Your task to perform on an android device: Is it going to rain today? Image 0: 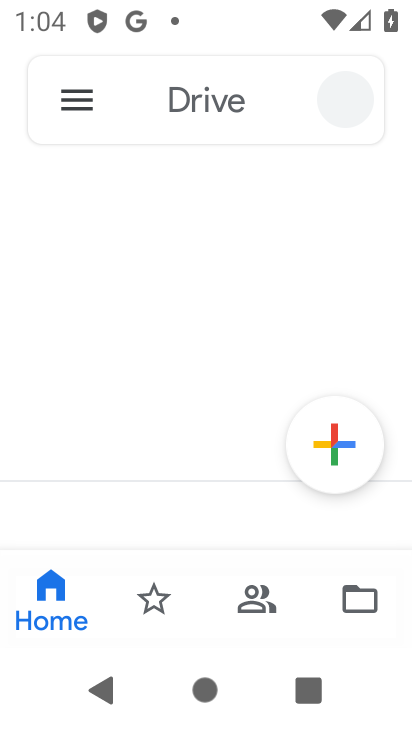
Step 0: drag from (205, 549) to (202, 150)
Your task to perform on an android device: Is it going to rain today? Image 1: 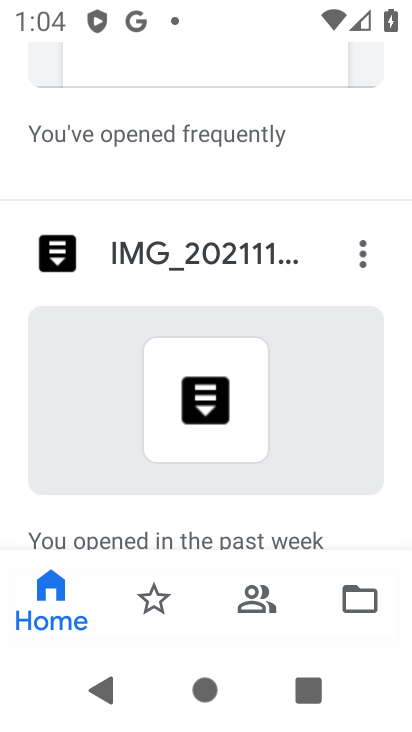
Step 1: press home button
Your task to perform on an android device: Is it going to rain today? Image 2: 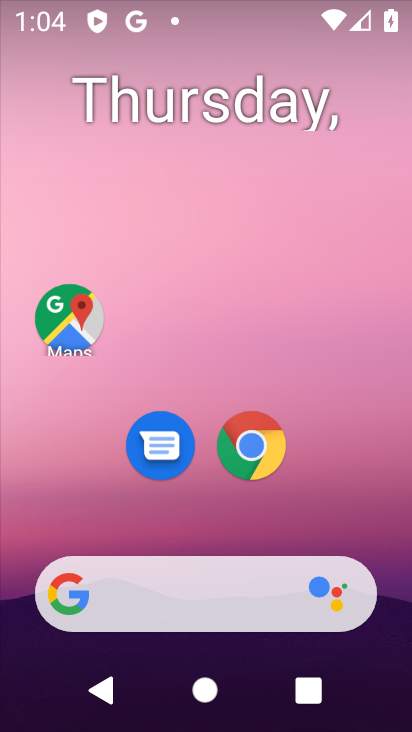
Step 2: drag from (169, 530) to (181, 360)
Your task to perform on an android device: Is it going to rain today? Image 3: 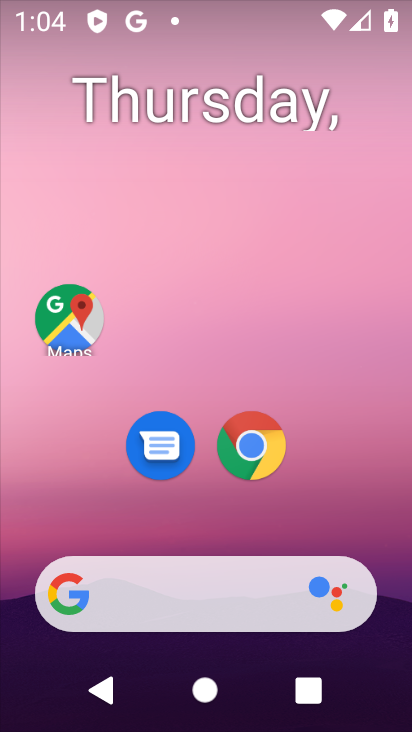
Step 3: drag from (220, 559) to (25, 55)
Your task to perform on an android device: Is it going to rain today? Image 4: 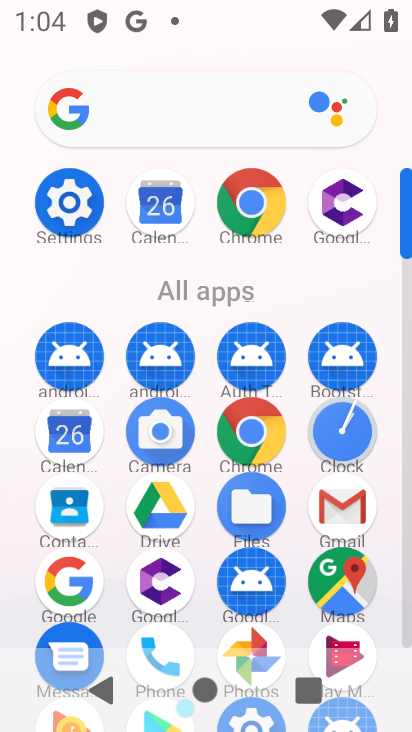
Step 4: click (155, 105)
Your task to perform on an android device: Is it going to rain today? Image 5: 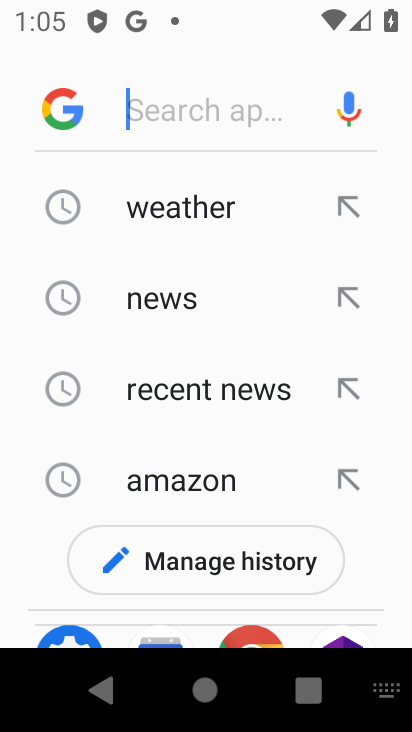
Step 5: type "rain today?"
Your task to perform on an android device: Is it going to rain today? Image 6: 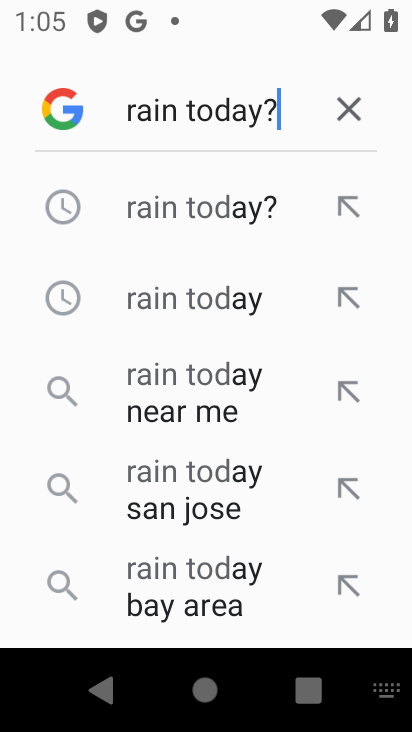
Step 6: type ""
Your task to perform on an android device: Is it going to rain today? Image 7: 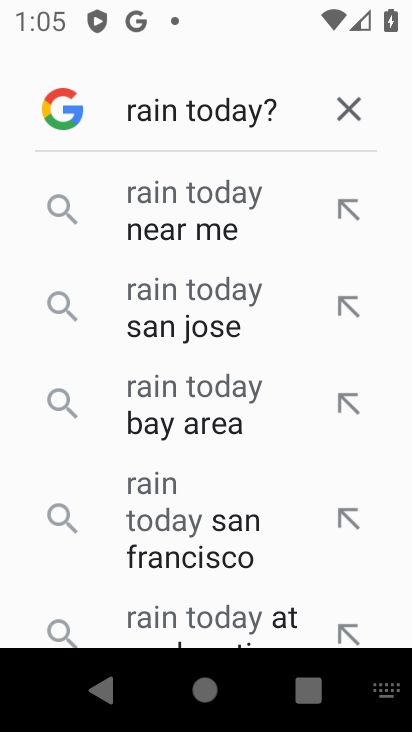
Step 7: click (173, 200)
Your task to perform on an android device: Is it going to rain today? Image 8: 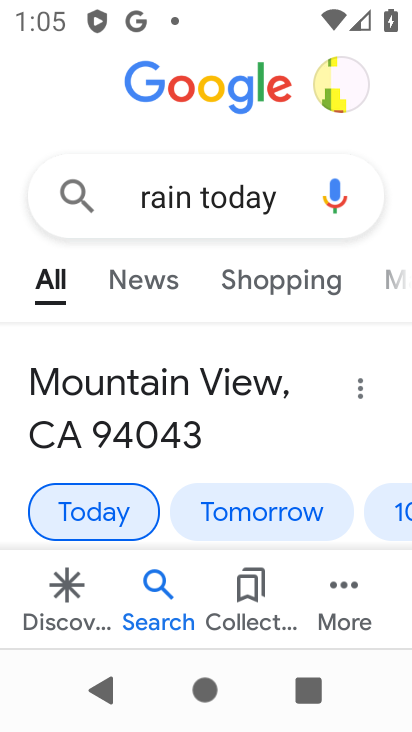
Step 8: task complete